Your task to perform on an android device: find snoozed emails in the gmail app Image 0: 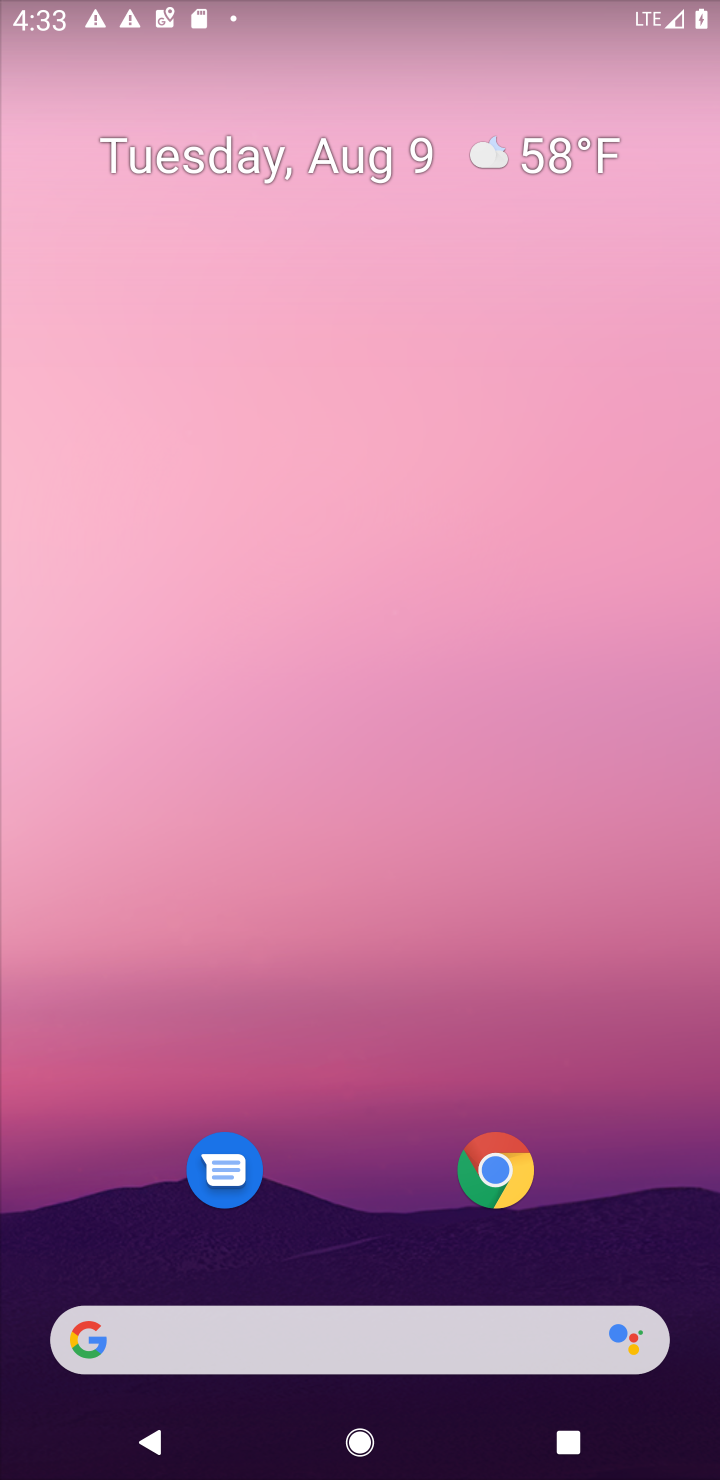
Step 0: press home button
Your task to perform on an android device: find snoozed emails in the gmail app Image 1: 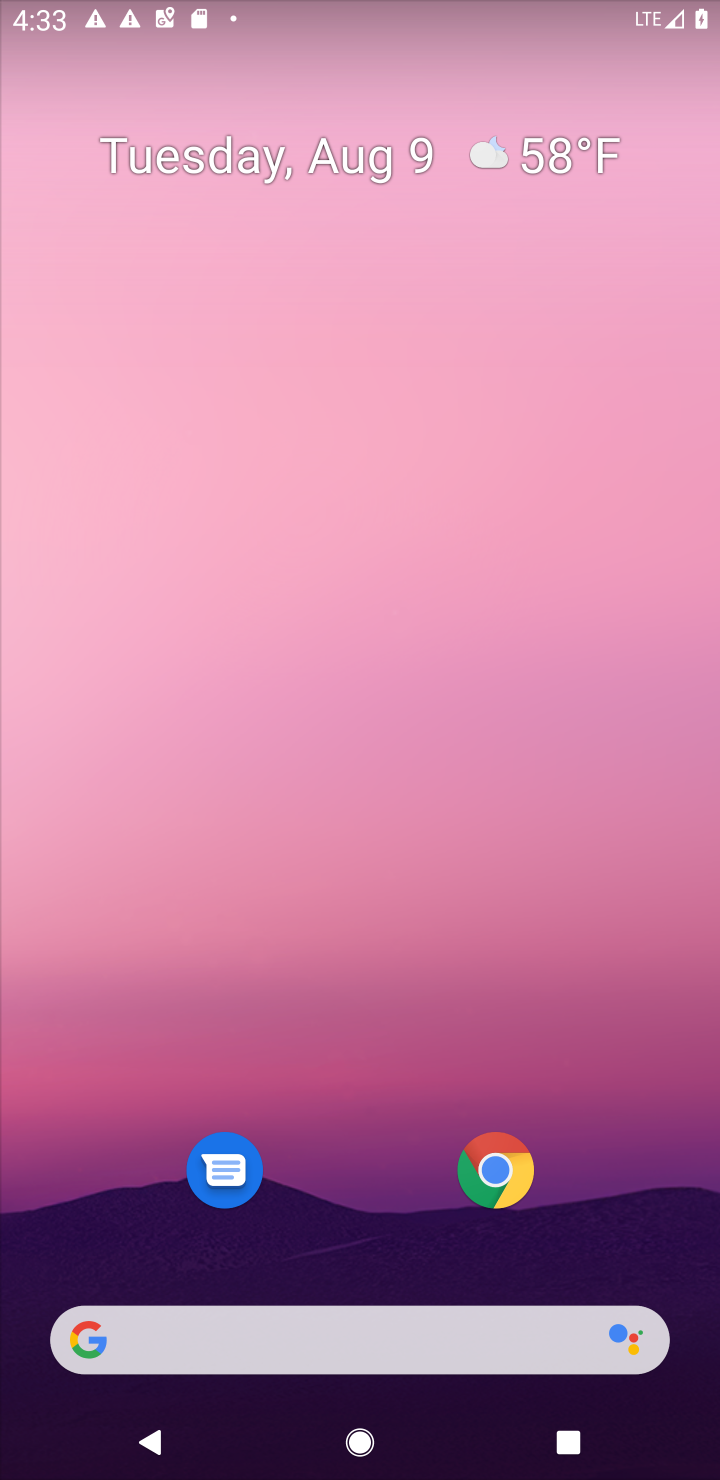
Step 1: drag from (368, 1260) to (671, 16)
Your task to perform on an android device: find snoozed emails in the gmail app Image 2: 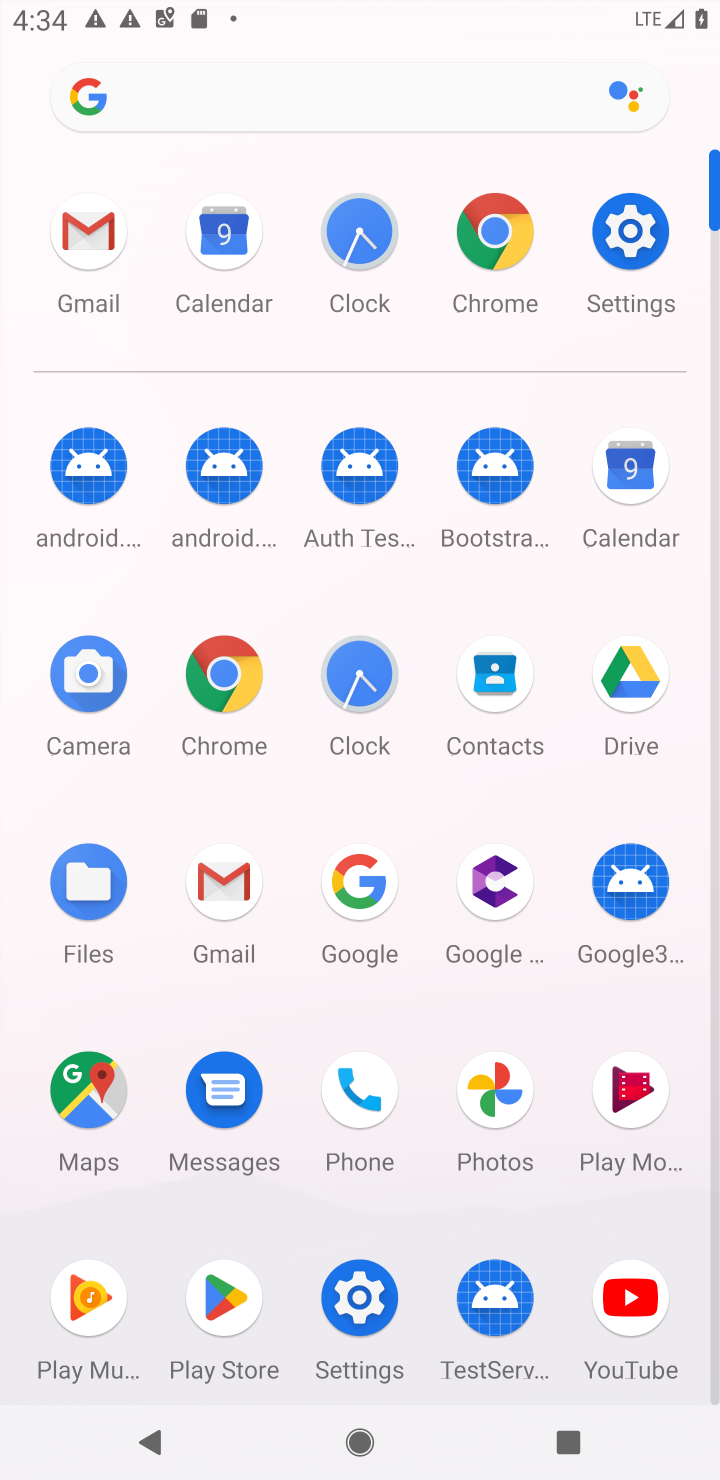
Step 2: click (88, 232)
Your task to perform on an android device: find snoozed emails in the gmail app Image 3: 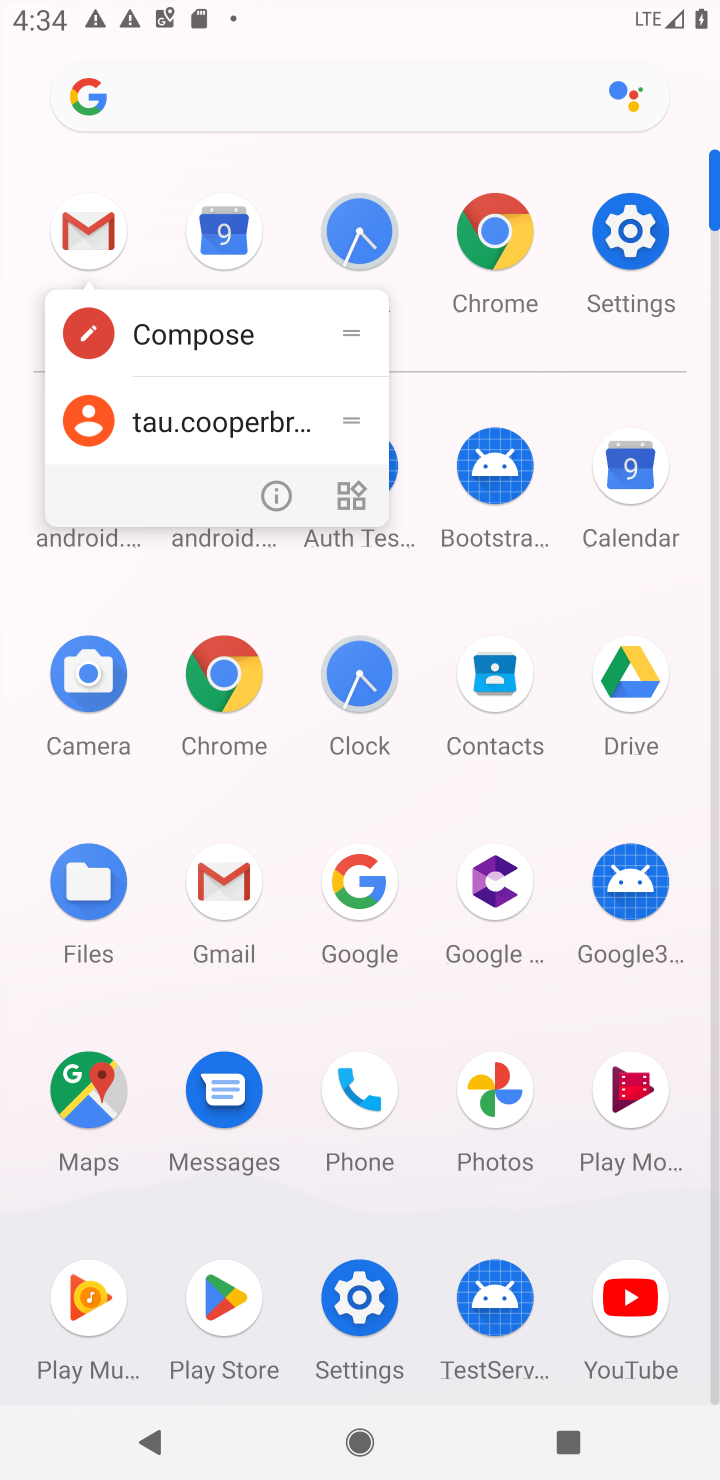
Step 3: click (96, 219)
Your task to perform on an android device: find snoozed emails in the gmail app Image 4: 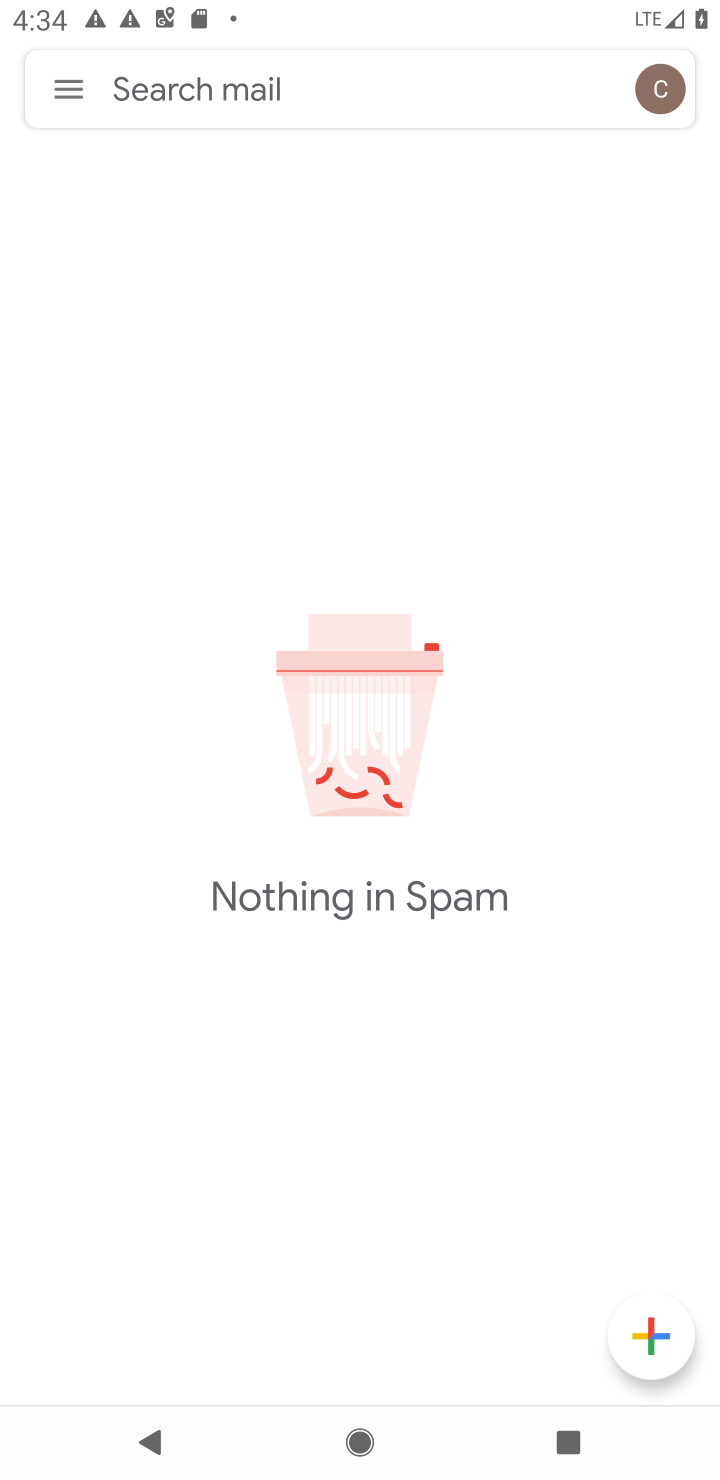
Step 4: click (62, 82)
Your task to perform on an android device: find snoozed emails in the gmail app Image 5: 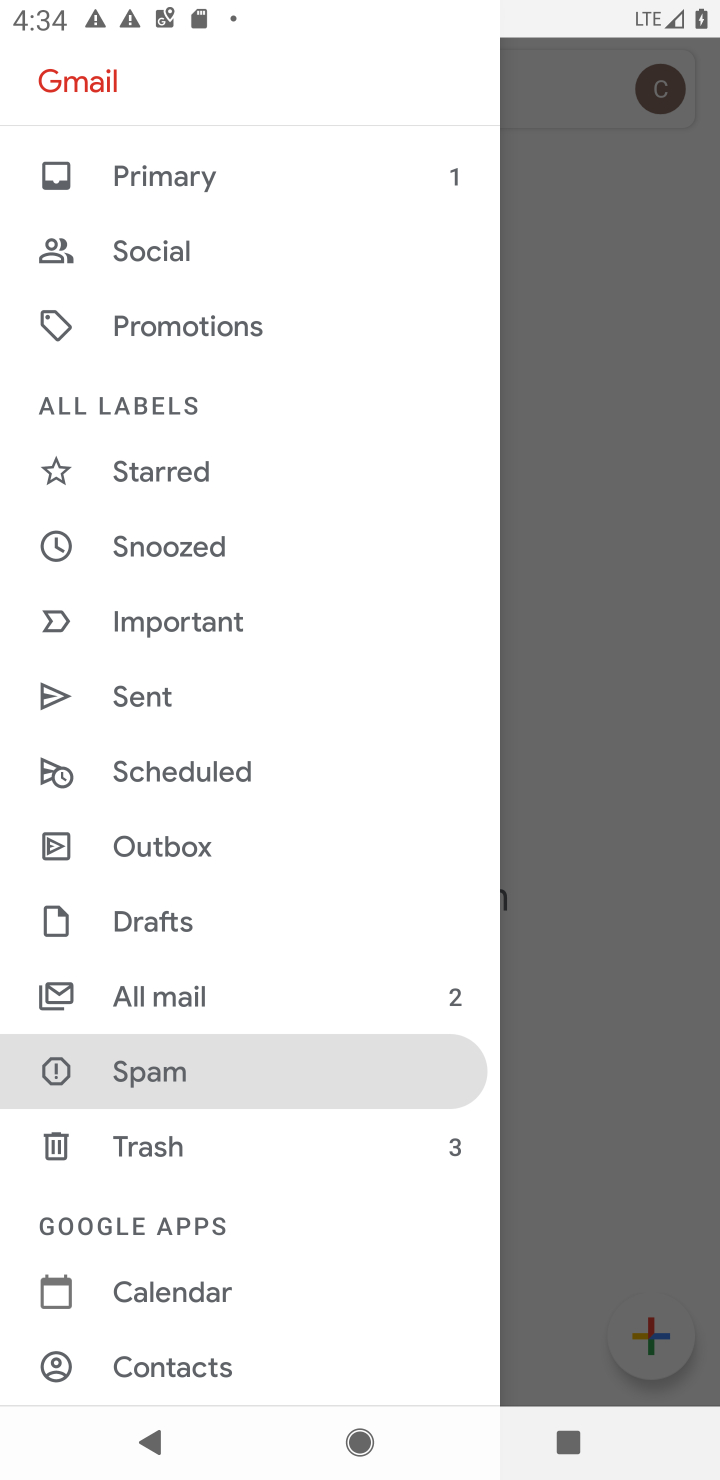
Step 5: click (164, 539)
Your task to perform on an android device: find snoozed emails in the gmail app Image 6: 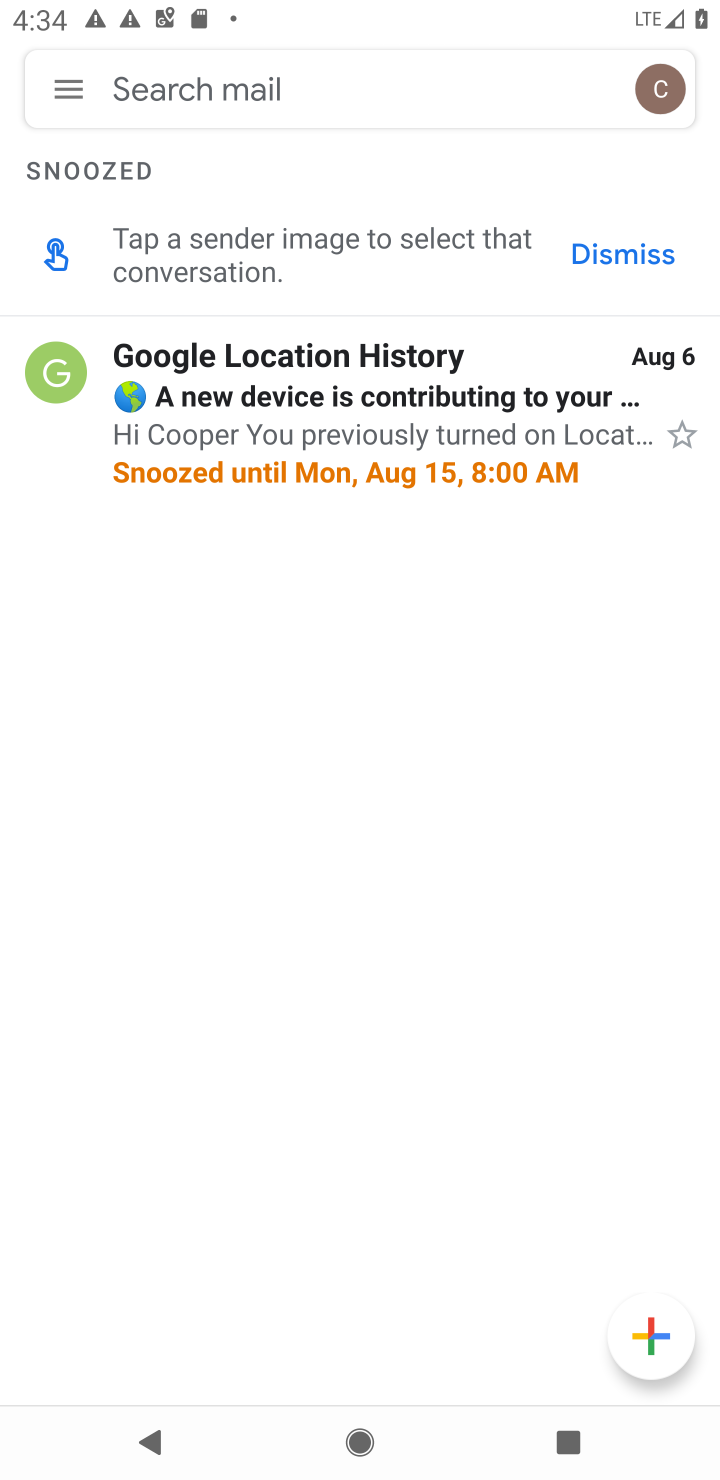
Step 6: task complete